Your task to perform on an android device: Open network settings Image 0: 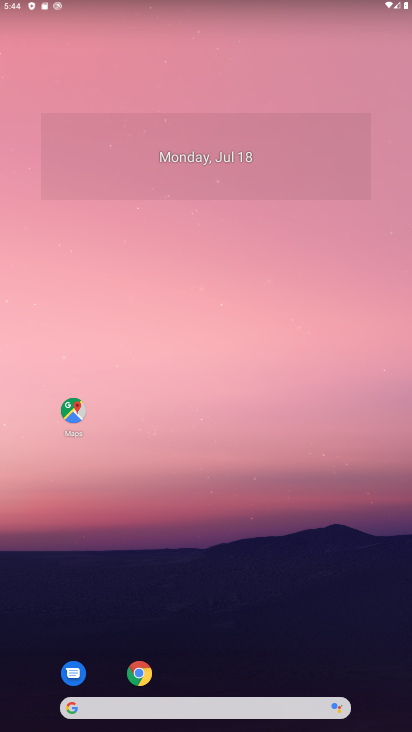
Step 0: drag from (250, 197) to (282, 18)
Your task to perform on an android device: Open network settings Image 1: 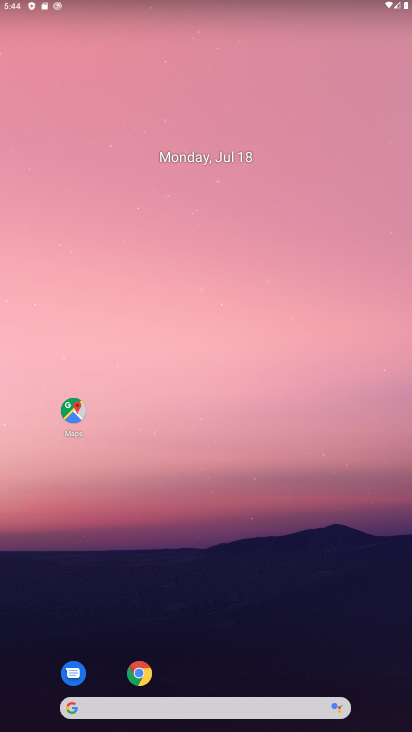
Step 1: drag from (218, 508) to (315, 16)
Your task to perform on an android device: Open network settings Image 2: 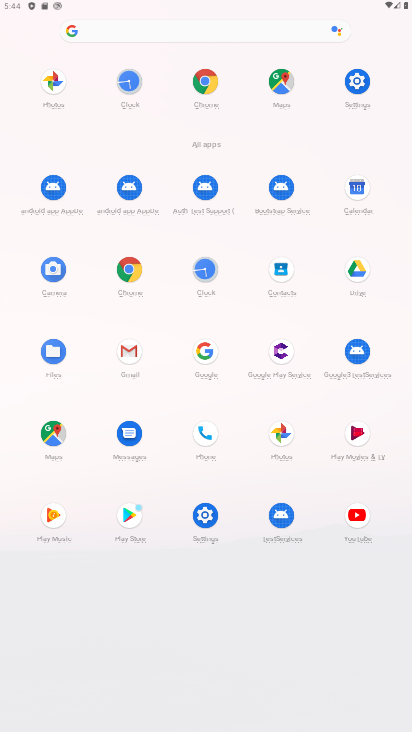
Step 2: click (203, 514)
Your task to perform on an android device: Open network settings Image 3: 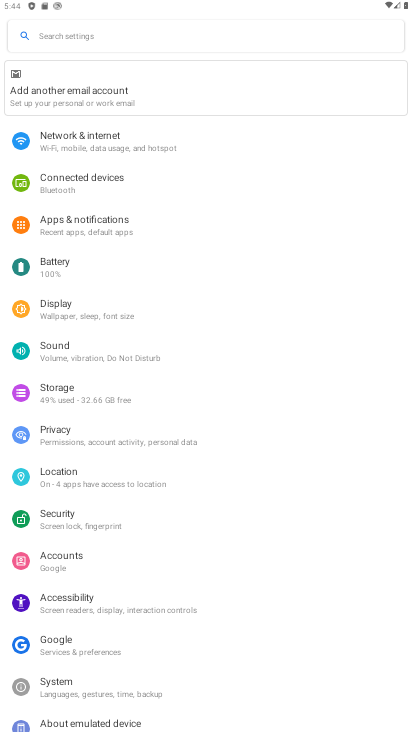
Step 3: click (86, 141)
Your task to perform on an android device: Open network settings Image 4: 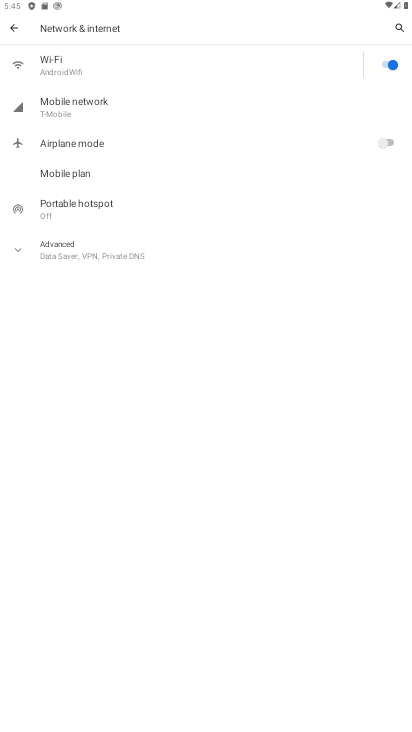
Step 4: task complete